Your task to perform on an android device: toggle wifi Image 0: 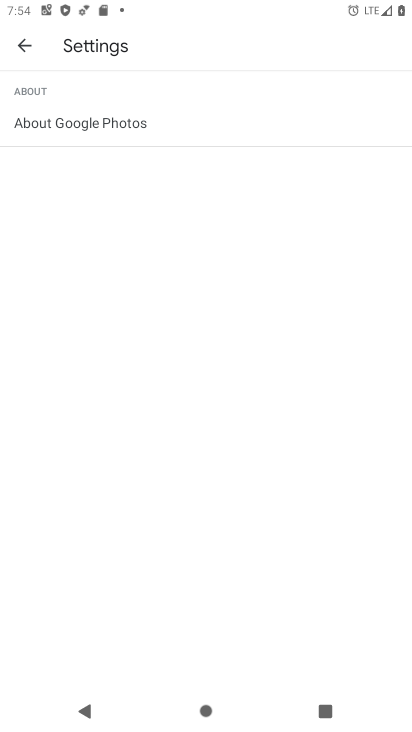
Step 0: press home button
Your task to perform on an android device: toggle wifi Image 1: 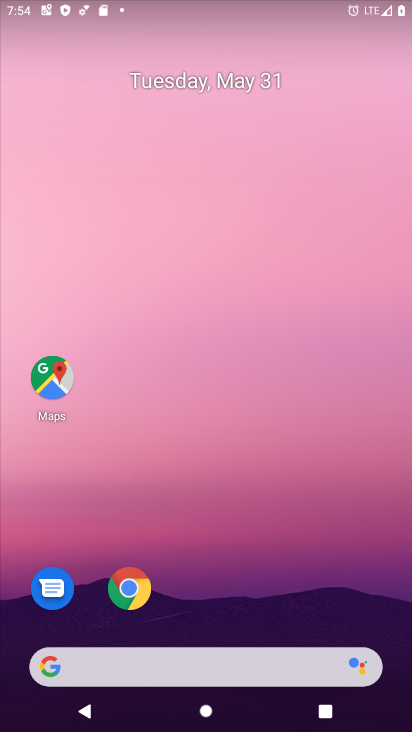
Step 1: drag from (234, 497) to (237, 125)
Your task to perform on an android device: toggle wifi Image 2: 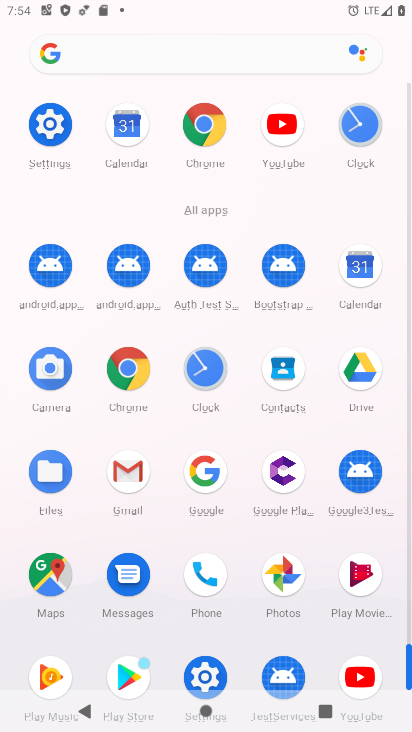
Step 2: click (41, 134)
Your task to perform on an android device: toggle wifi Image 3: 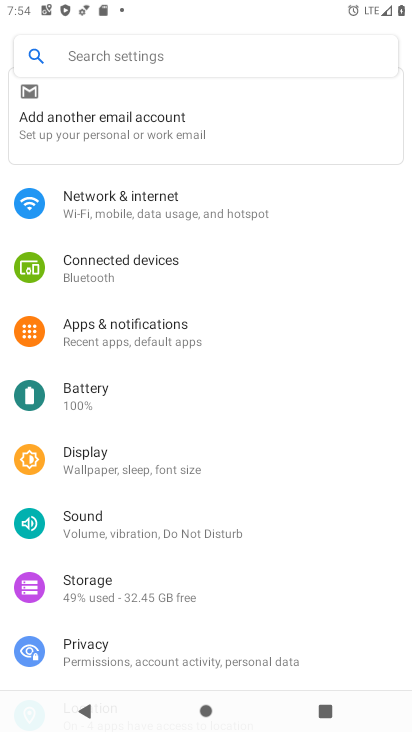
Step 3: click (146, 213)
Your task to perform on an android device: toggle wifi Image 4: 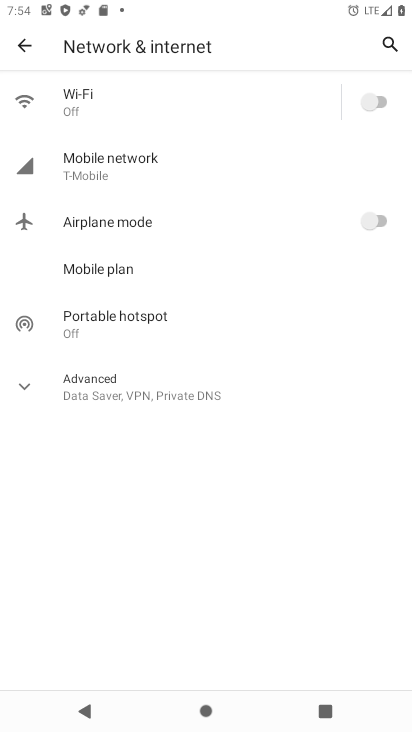
Step 4: click (393, 104)
Your task to perform on an android device: toggle wifi Image 5: 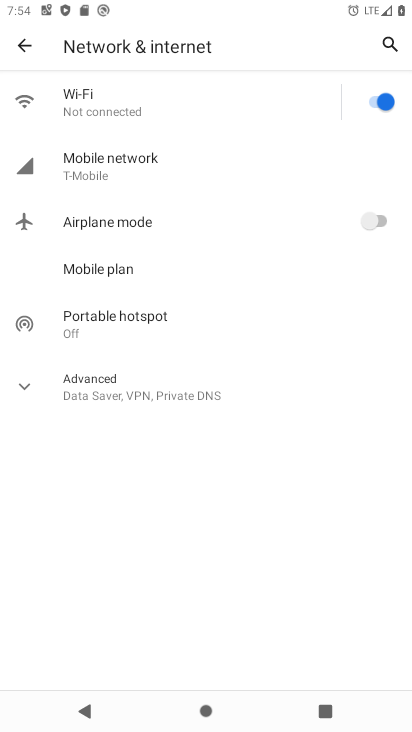
Step 5: task complete